Your task to perform on an android device: Open my contact list Image 0: 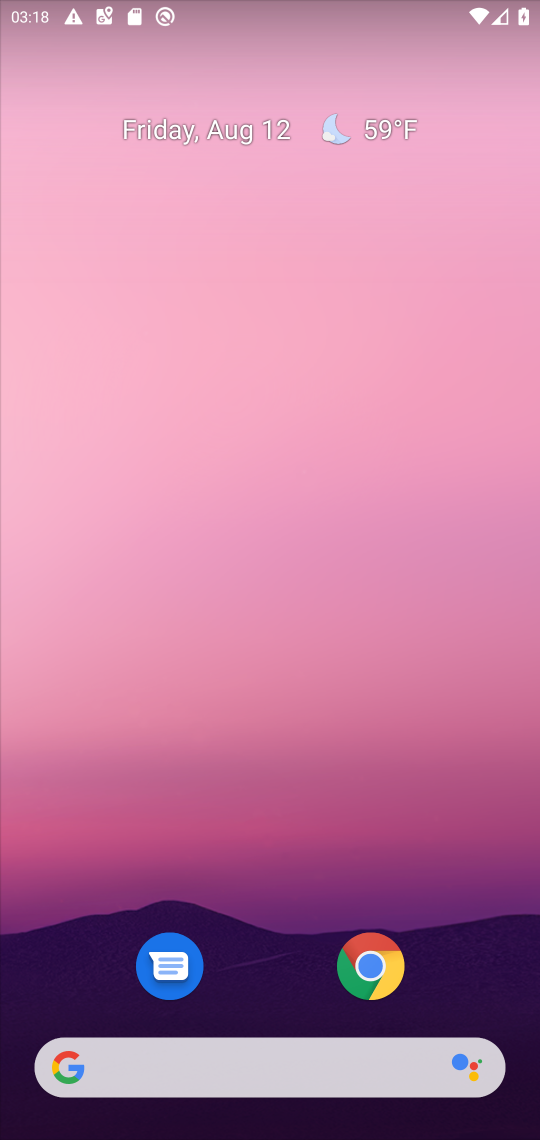
Step 0: drag from (260, 609) to (339, 4)
Your task to perform on an android device: Open my contact list Image 1: 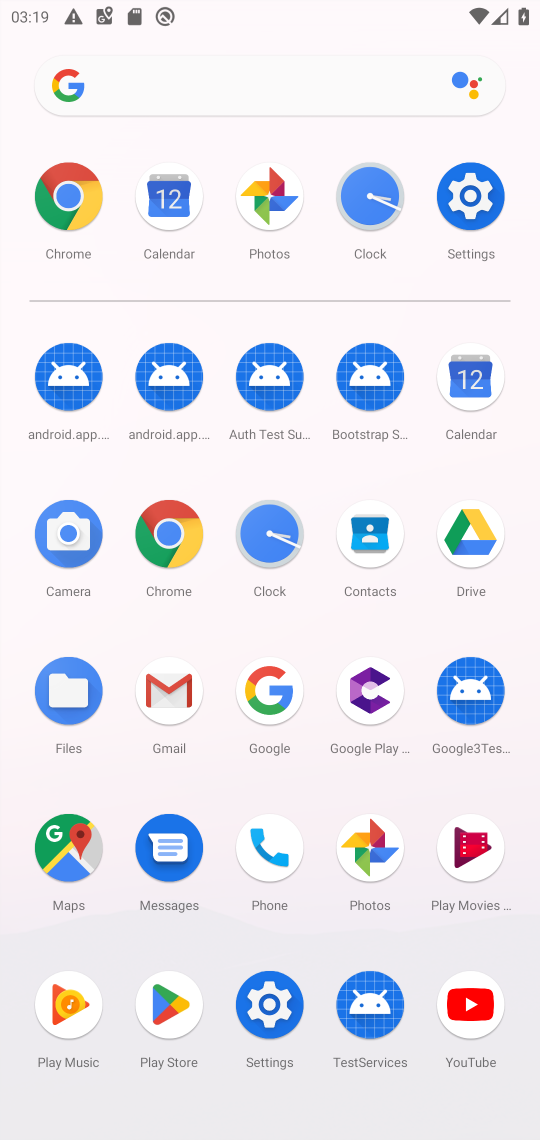
Step 1: click (379, 539)
Your task to perform on an android device: Open my contact list Image 2: 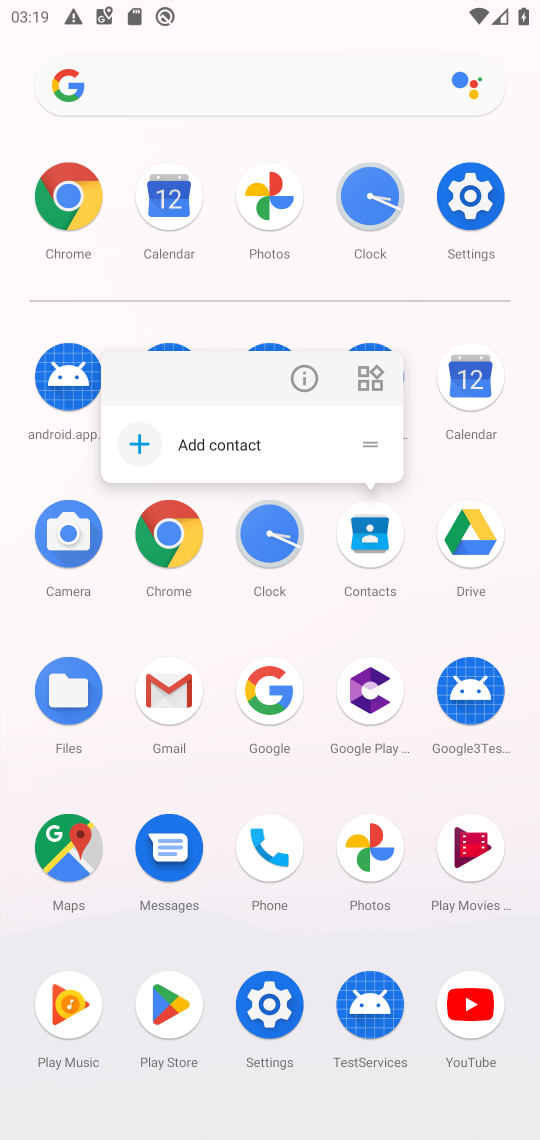
Step 2: click (343, 533)
Your task to perform on an android device: Open my contact list Image 3: 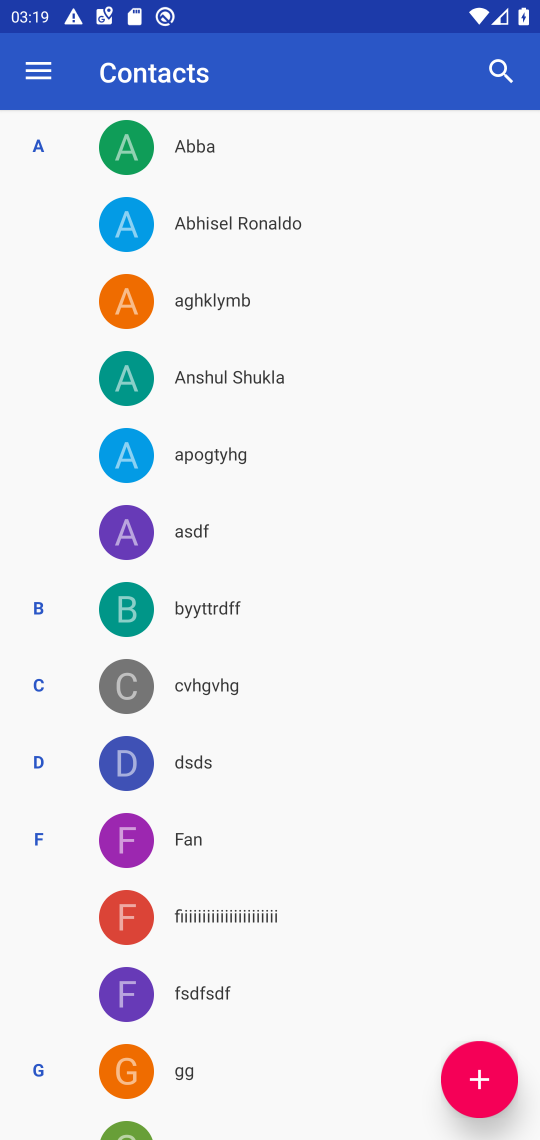
Step 3: task complete